Your task to perform on an android device: turn off data saver in the chrome app Image 0: 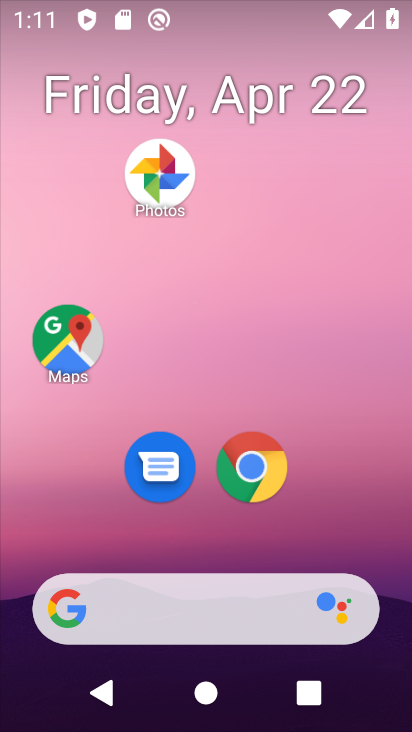
Step 0: click (249, 461)
Your task to perform on an android device: turn off data saver in the chrome app Image 1: 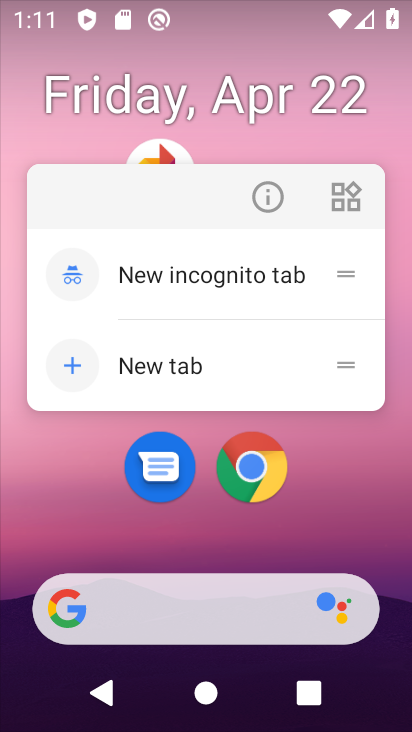
Step 1: click (249, 461)
Your task to perform on an android device: turn off data saver in the chrome app Image 2: 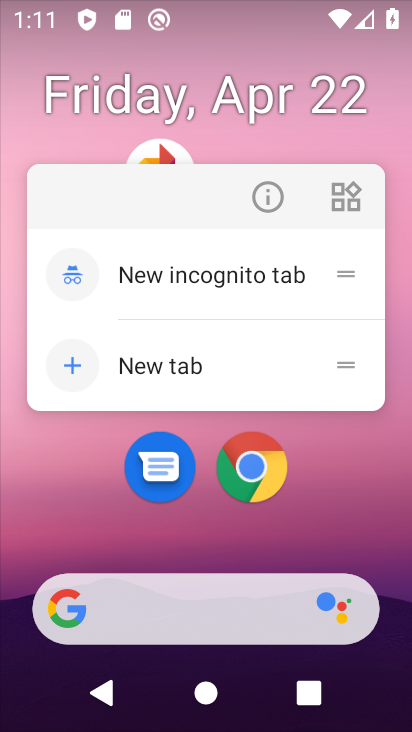
Step 2: click (362, 485)
Your task to perform on an android device: turn off data saver in the chrome app Image 3: 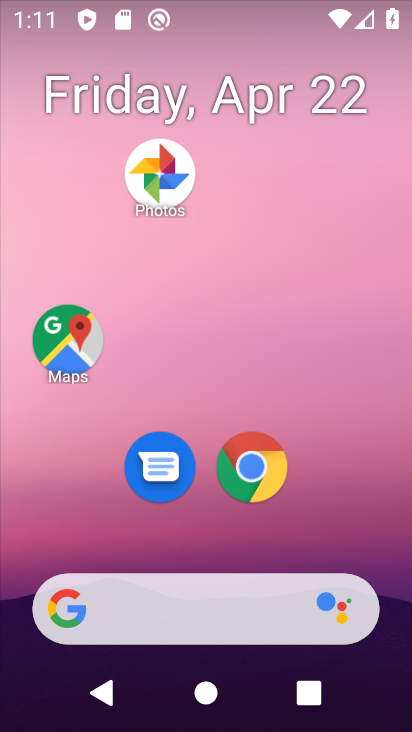
Step 3: drag from (218, 551) to (214, 27)
Your task to perform on an android device: turn off data saver in the chrome app Image 4: 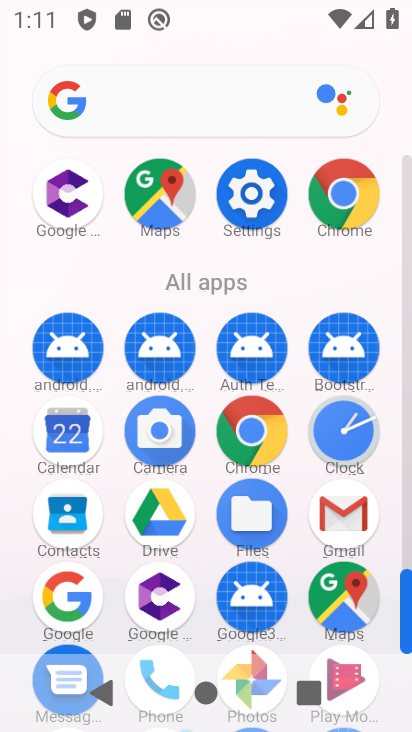
Step 4: drag from (201, 622) to (235, 151)
Your task to perform on an android device: turn off data saver in the chrome app Image 5: 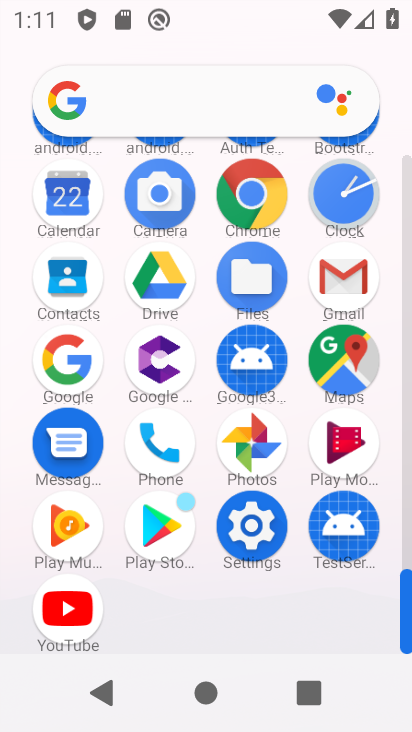
Step 5: click (247, 183)
Your task to perform on an android device: turn off data saver in the chrome app Image 6: 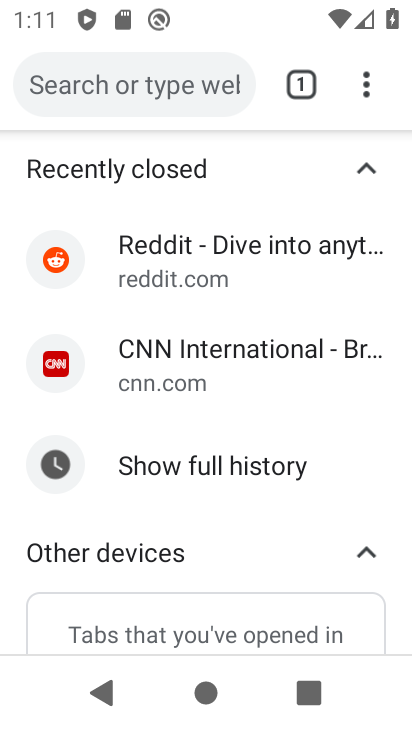
Step 6: click (359, 80)
Your task to perform on an android device: turn off data saver in the chrome app Image 7: 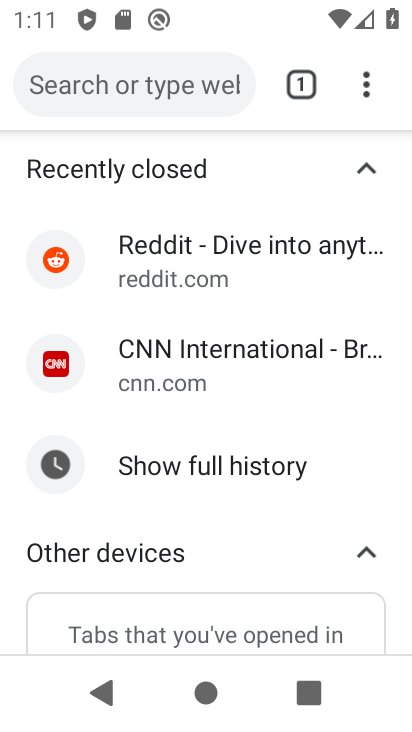
Step 7: click (365, 90)
Your task to perform on an android device: turn off data saver in the chrome app Image 8: 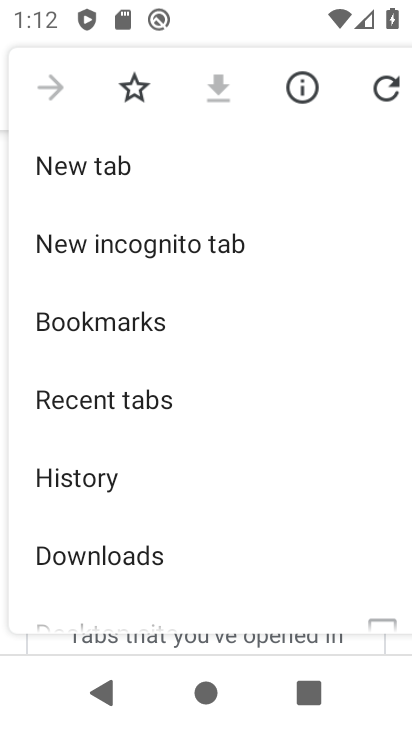
Step 8: drag from (207, 588) to (257, 57)
Your task to perform on an android device: turn off data saver in the chrome app Image 9: 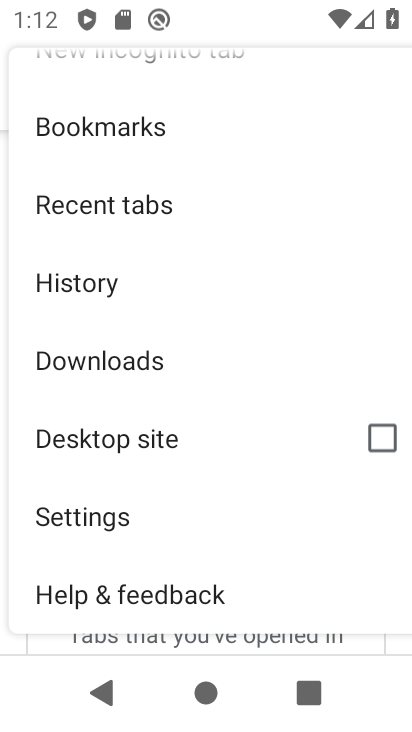
Step 9: click (138, 515)
Your task to perform on an android device: turn off data saver in the chrome app Image 10: 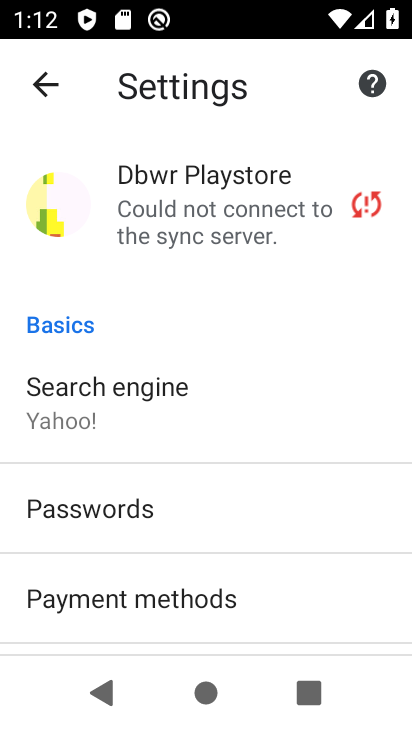
Step 10: drag from (243, 601) to (266, 123)
Your task to perform on an android device: turn off data saver in the chrome app Image 11: 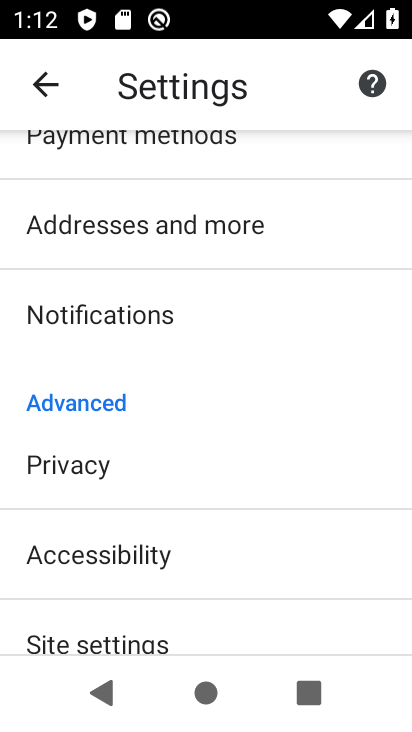
Step 11: drag from (242, 618) to (290, 155)
Your task to perform on an android device: turn off data saver in the chrome app Image 12: 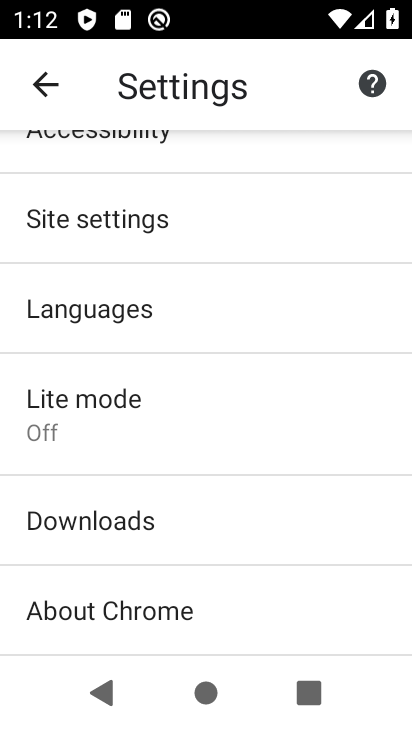
Step 12: click (108, 431)
Your task to perform on an android device: turn off data saver in the chrome app Image 13: 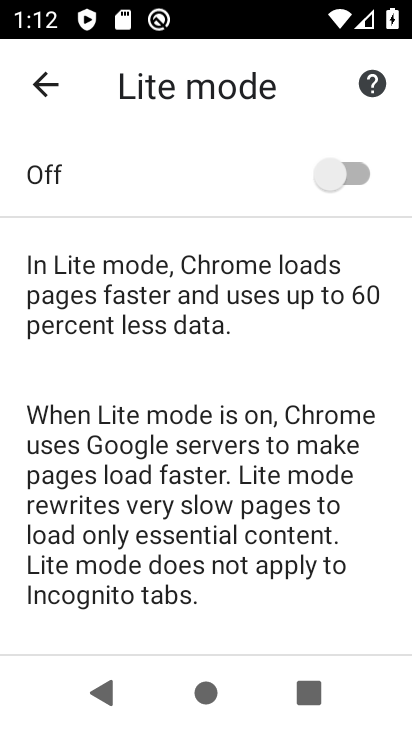
Step 13: task complete